Your task to perform on an android device: Do I have any events tomorrow? Image 0: 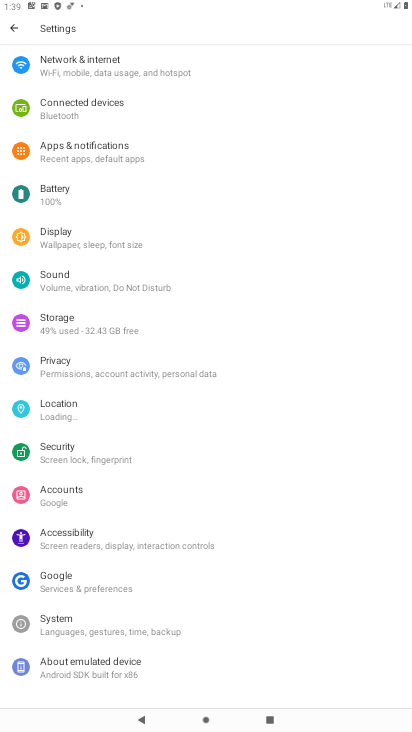
Step 0: press home button
Your task to perform on an android device: Do I have any events tomorrow? Image 1: 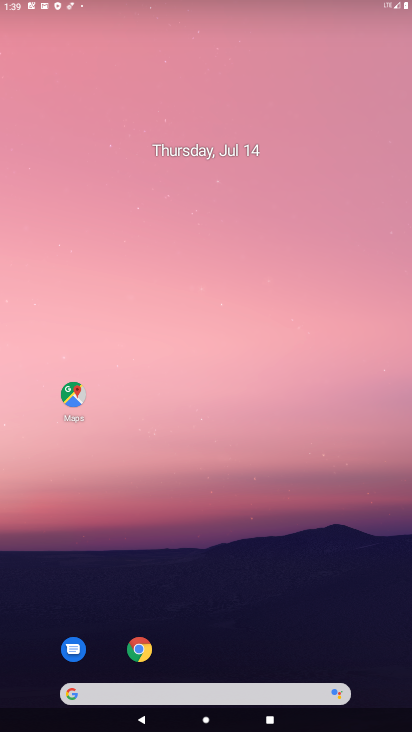
Step 1: drag from (387, 668) to (231, 109)
Your task to perform on an android device: Do I have any events tomorrow? Image 2: 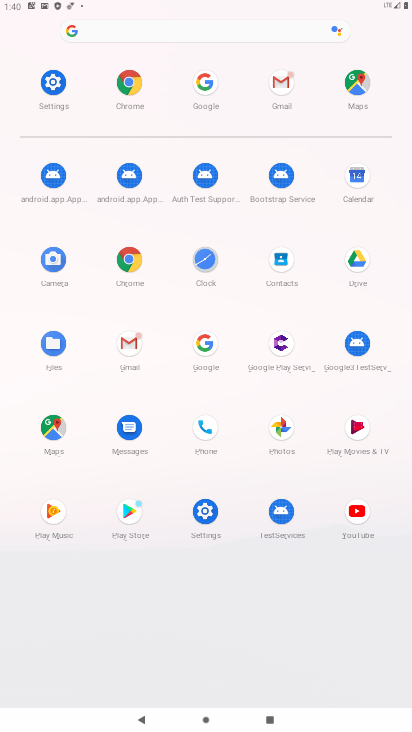
Step 2: click (363, 183)
Your task to perform on an android device: Do I have any events tomorrow? Image 3: 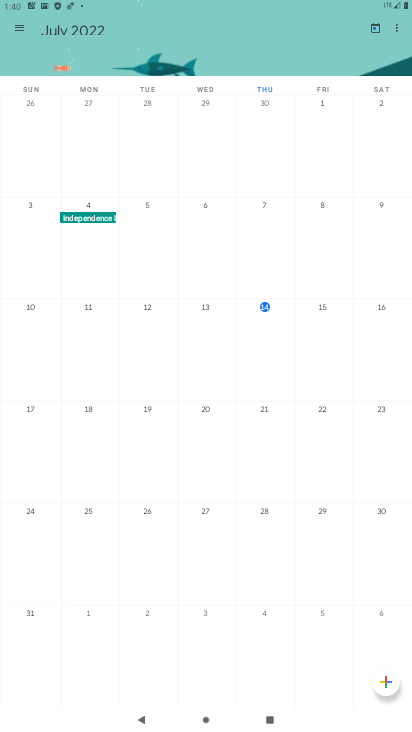
Step 3: task complete